Your task to perform on an android device: turn off translation in the chrome app Image 0: 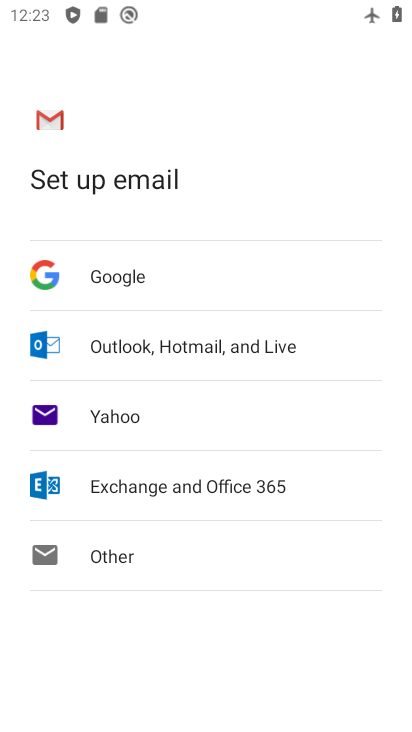
Step 0: press home button
Your task to perform on an android device: turn off translation in the chrome app Image 1: 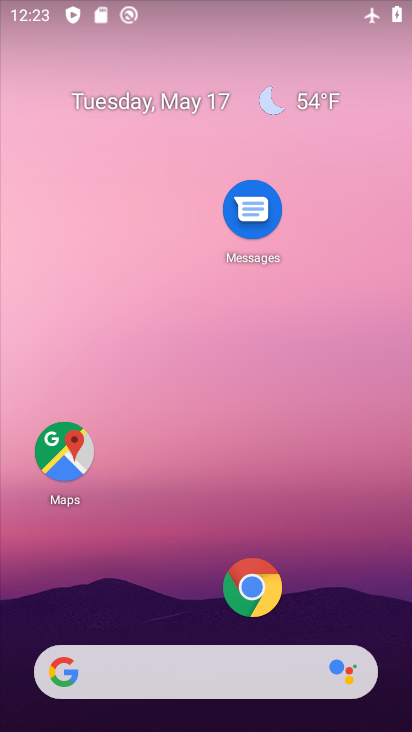
Step 1: click (237, 573)
Your task to perform on an android device: turn off translation in the chrome app Image 2: 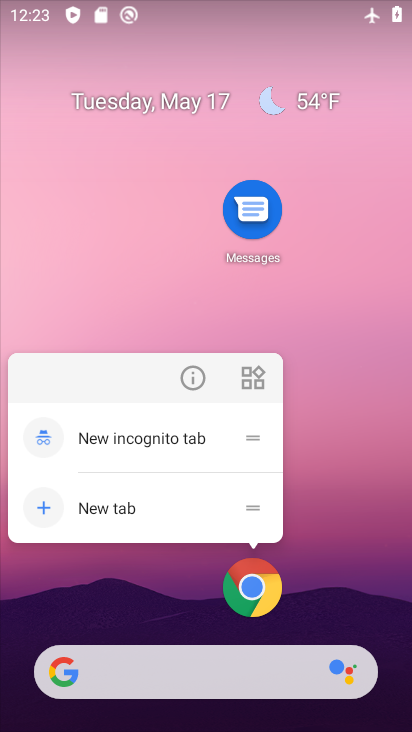
Step 2: click (261, 589)
Your task to perform on an android device: turn off translation in the chrome app Image 3: 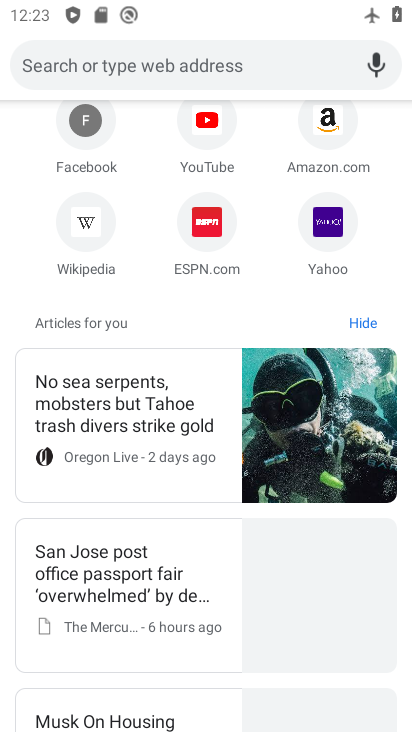
Step 3: drag from (276, 129) to (295, 636)
Your task to perform on an android device: turn off translation in the chrome app Image 4: 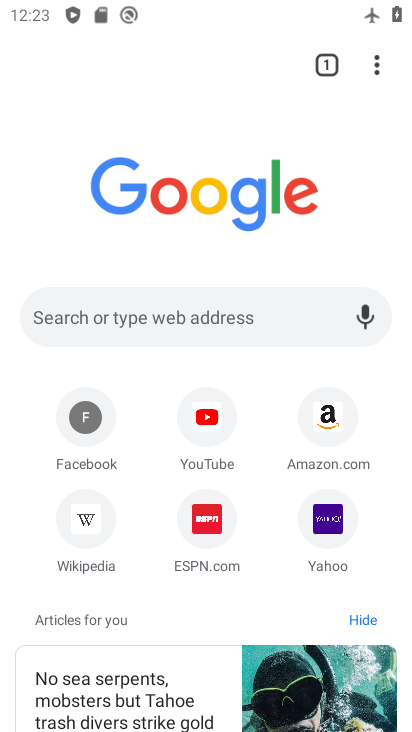
Step 4: click (373, 53)
Your task to perform on an android device: turn off translation in the chrome app Image 5: 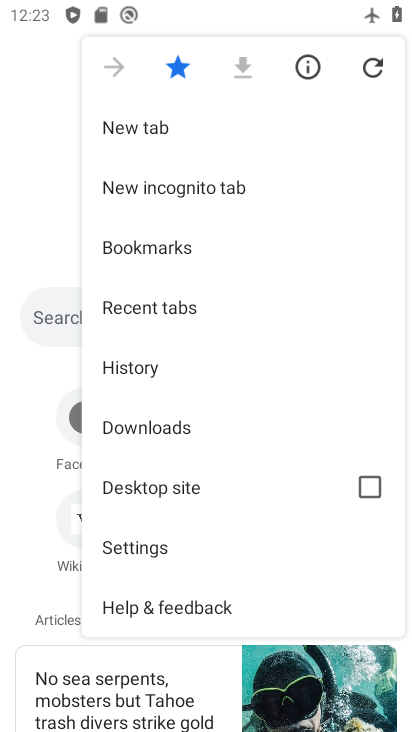
Step 5: click (159, 549)
Your task to perform on an android device: turn off translation in the chrome app Image 6: 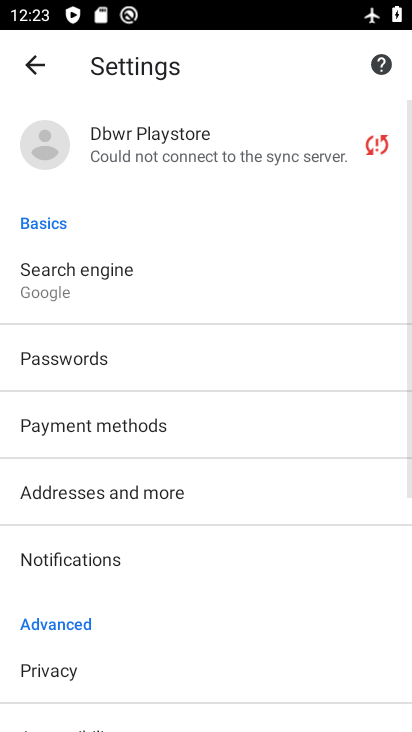
Step 6: drag from (118, 574) to (157, 325)
Your task to perform on an android device: turn off translation in the chrome app Image 7: 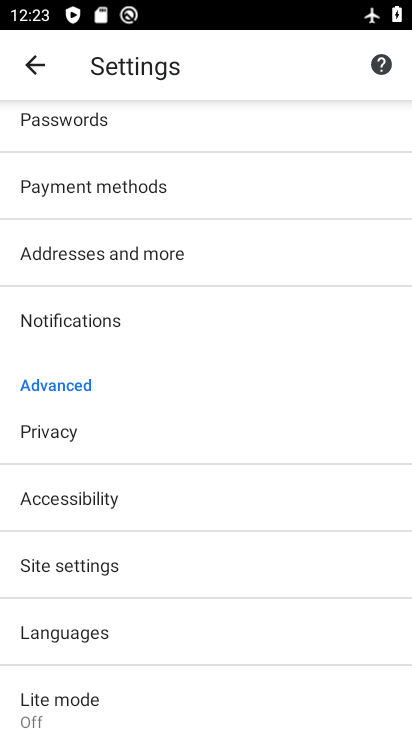
Step 7: click (101, 628)
Your task to perform on an android device: turn off translation in the chrome app Image 8: 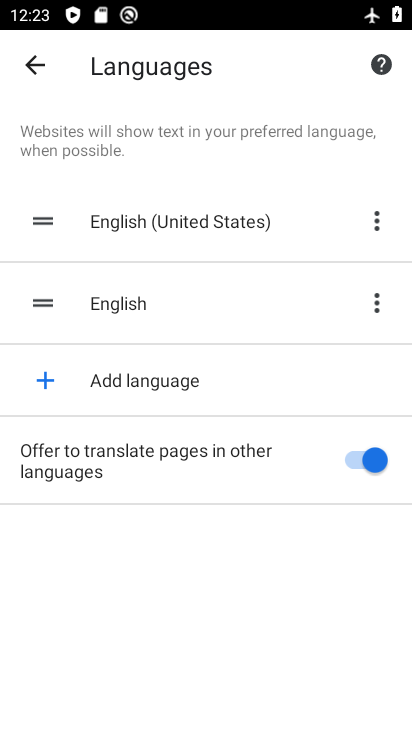
Step 8: click (337, 464)
Your task to perform on an android device: turn off translation in the chrome app Image 9: 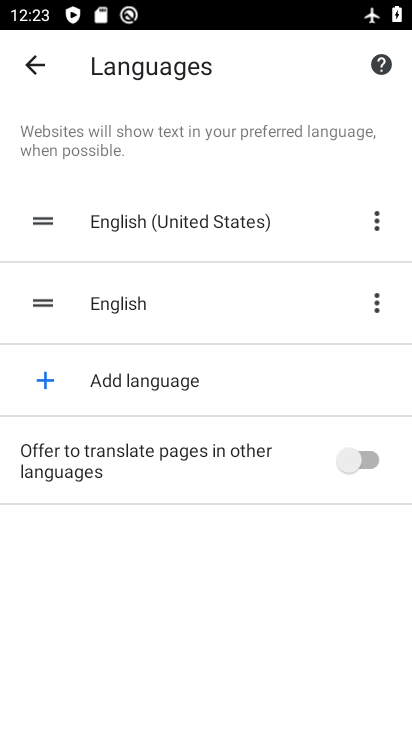
Step 9: task complete